Your task to perform on an android device: Do I have any events today? Image 0: 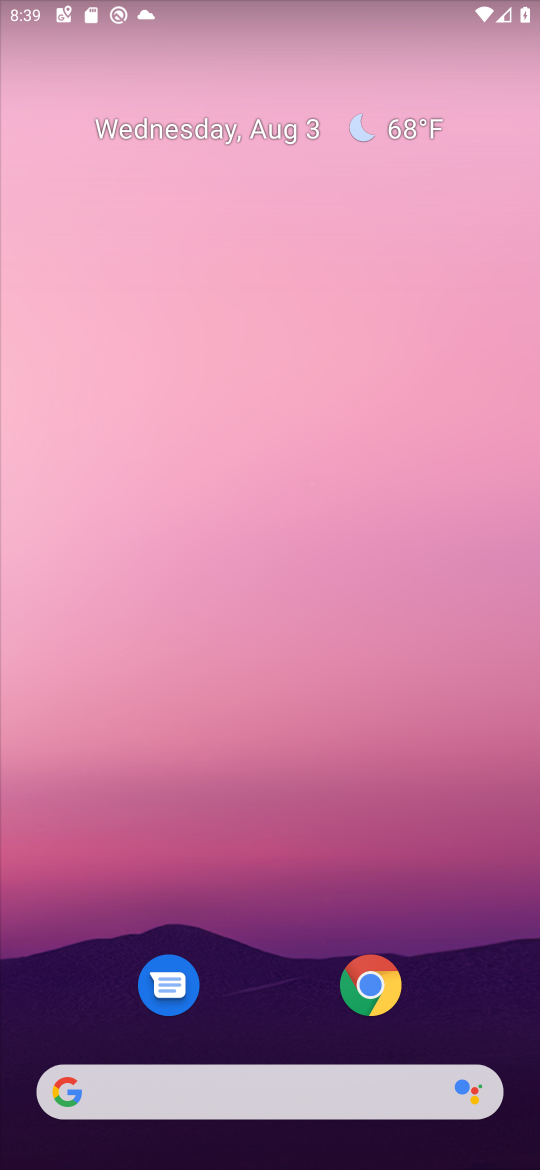
Step 0: drag from (281, 970) to (261, 383)
Your task to perform on an android device: Do I have any events today? Image 1: 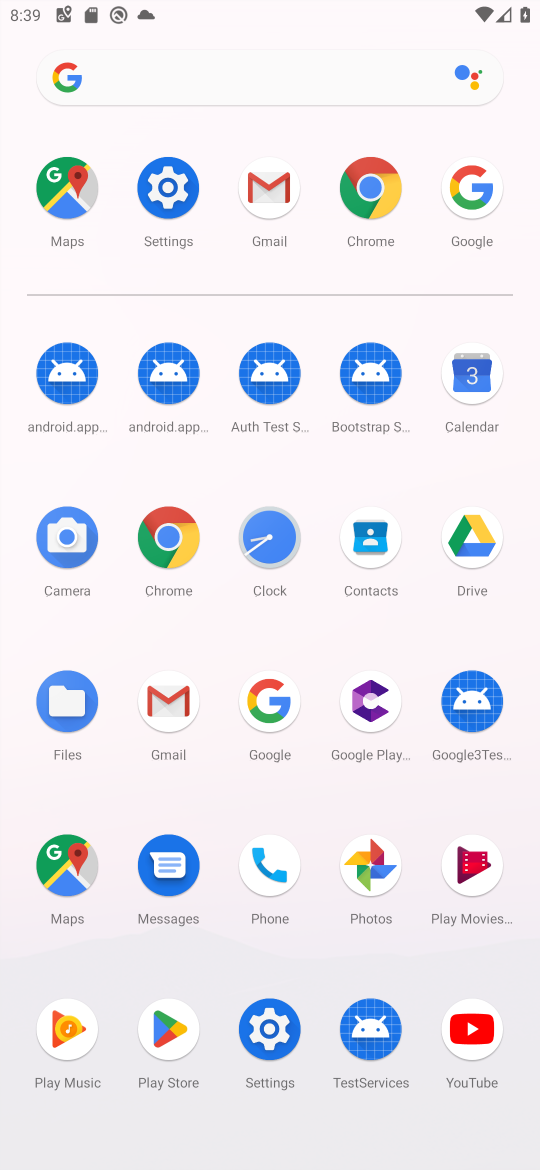
Step 1: click (454, 388)
Your task to perform on an android device: Do I have any events today? Image 2: 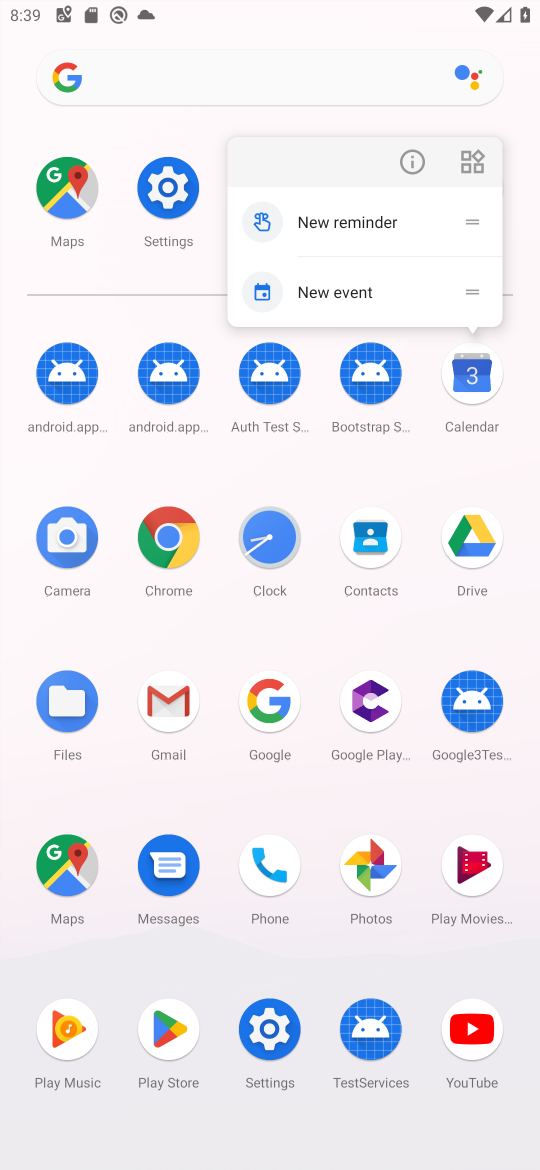
Step 2: click (471, 399)
Your task to perform on an android device: Do I have any events today? Image 3: 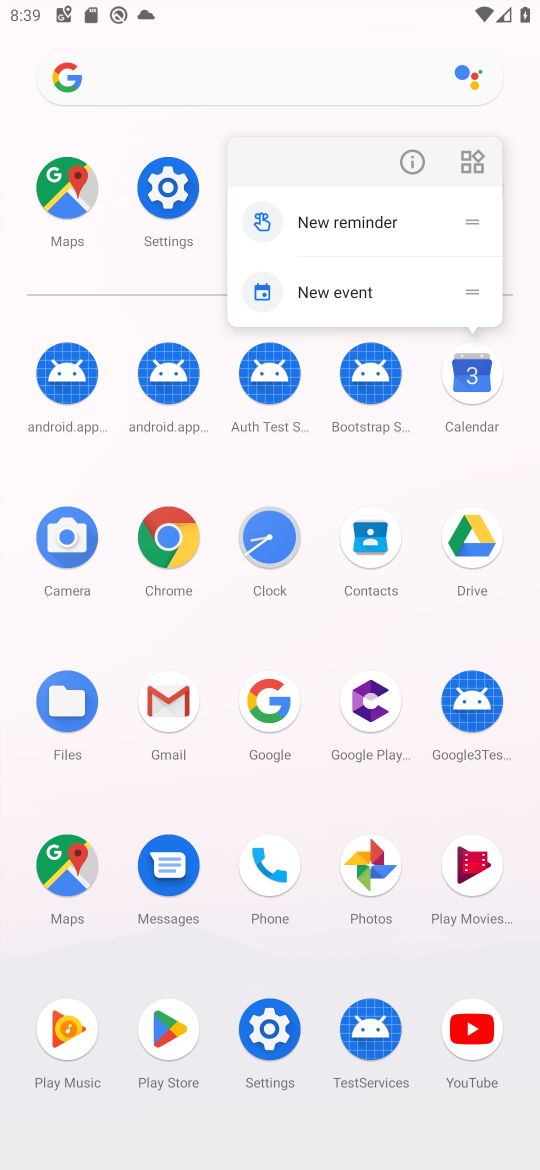
Step 3: click (471, 399)
Your task to perform on an android device: Do I have any events today? Image 4: 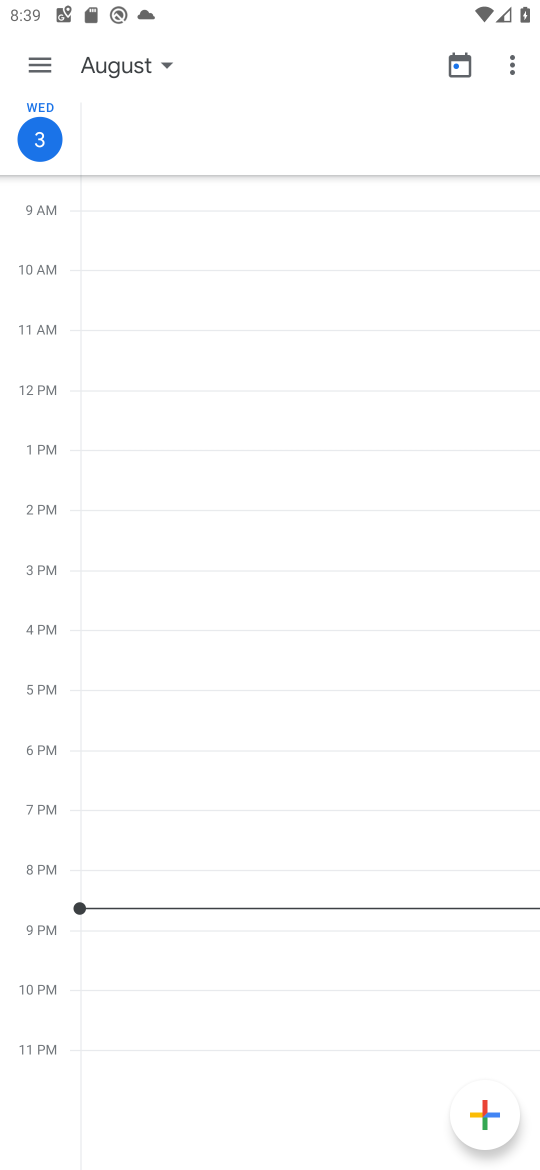
Step 4: click (155, 57)
Your task to perform on an android device: Do I have any events today? Image 5: 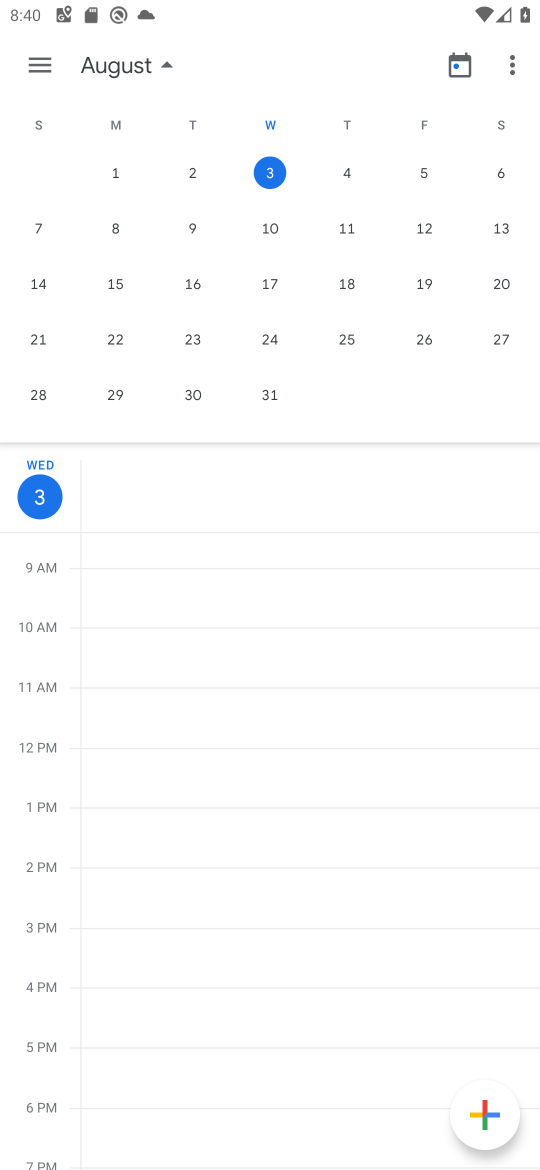
Step 5: click (286, 174)
Your task to perform on an android device: Do I have any events today? Image 6: 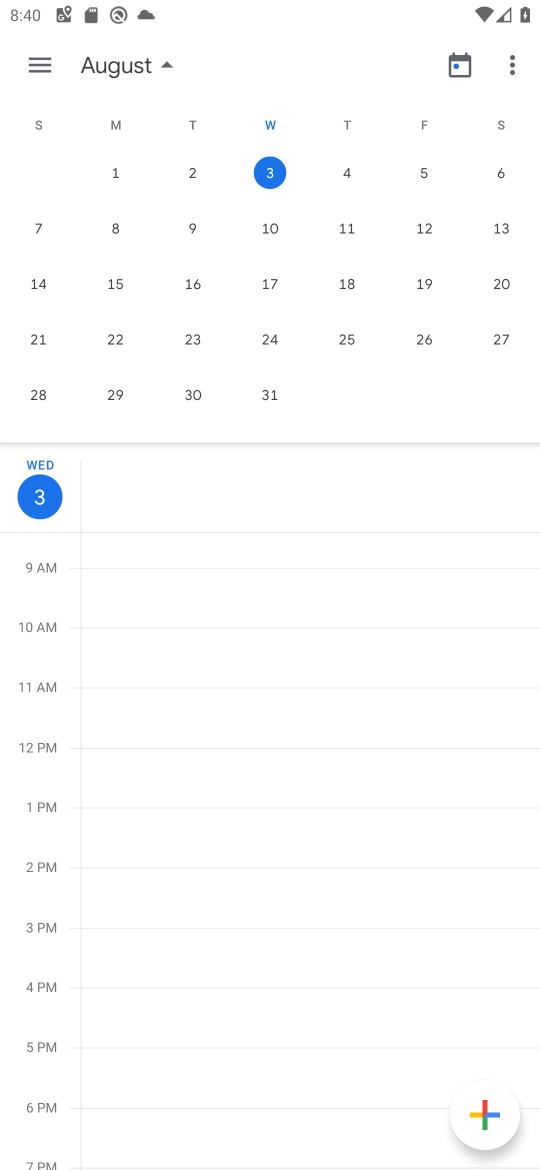
Step 6: click (19, 60)
Your task to perform on an android device: Do I have any events today? Image 7: 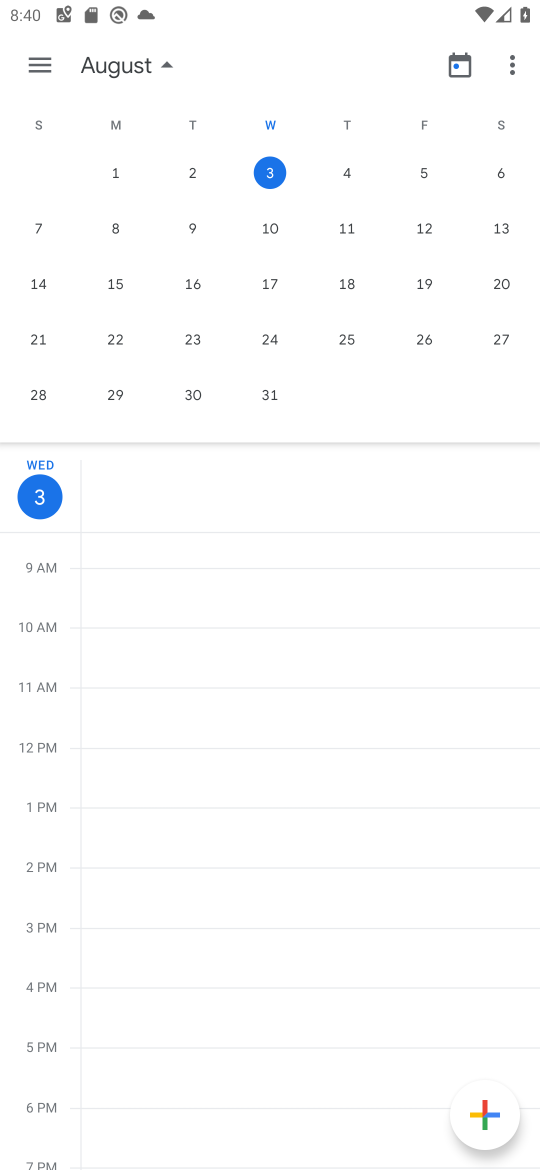
Step 7: click (46, 60)
Your task to perform on an android device: Do I have any events today? Image 8: 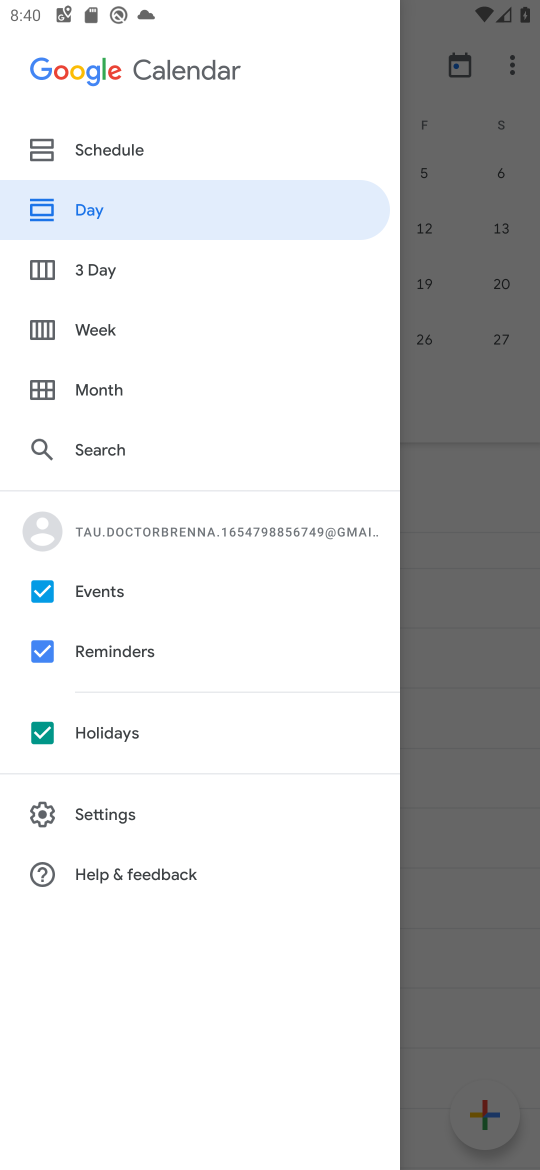
Step 8: click (136, 159)
Your task to perform on an android device: Do I have any events today? Image 9: 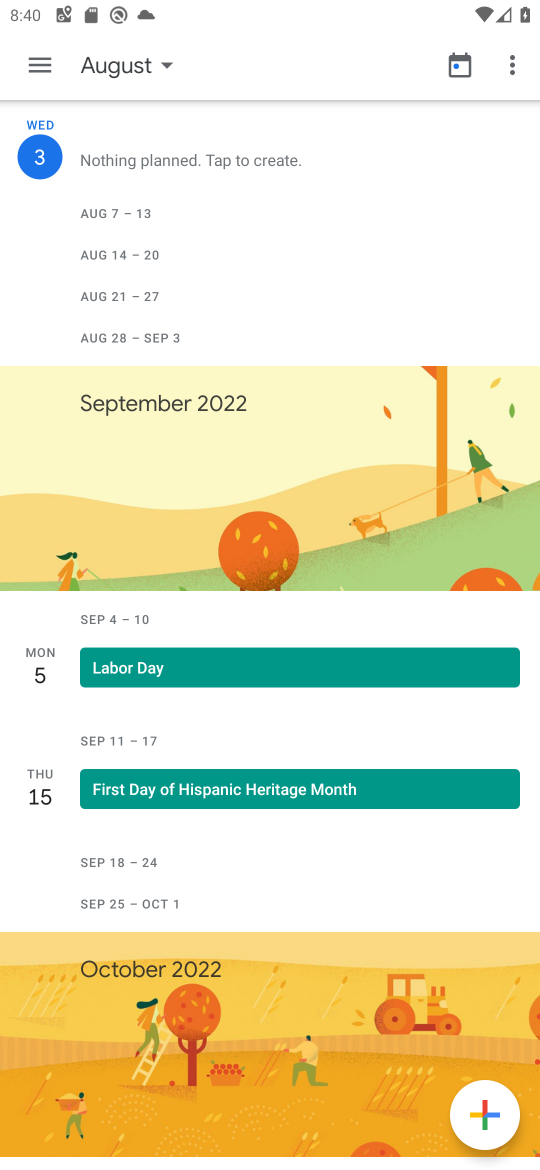
Step 9: click (30, 80)
Your task to perform on an android device: Do I have any events today? Image 10: 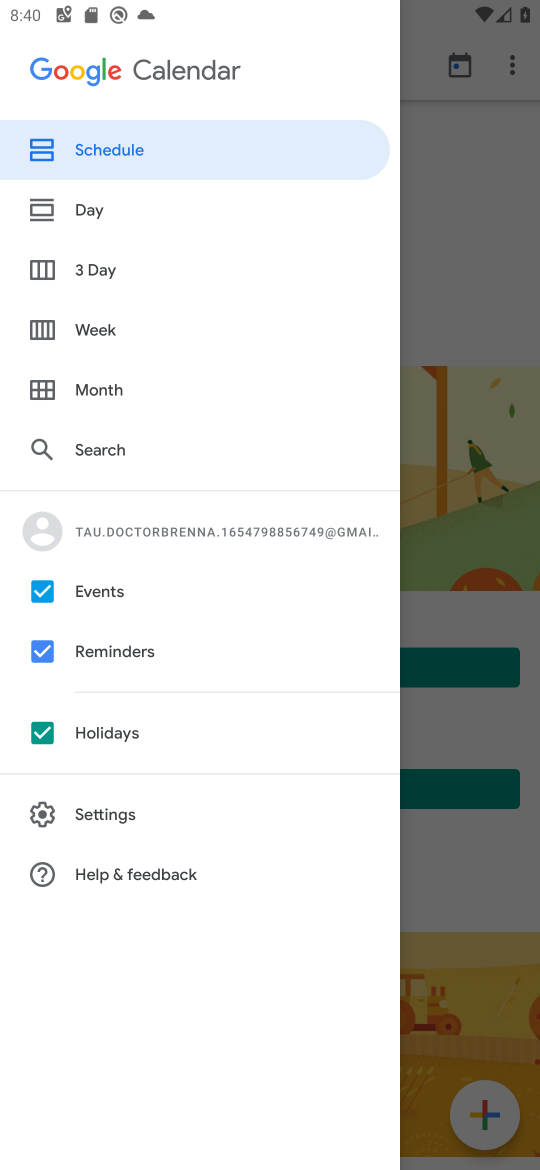
Step 10: click (435, 225)
Your task to perform on an android device: Do I have any events today? Image 11: 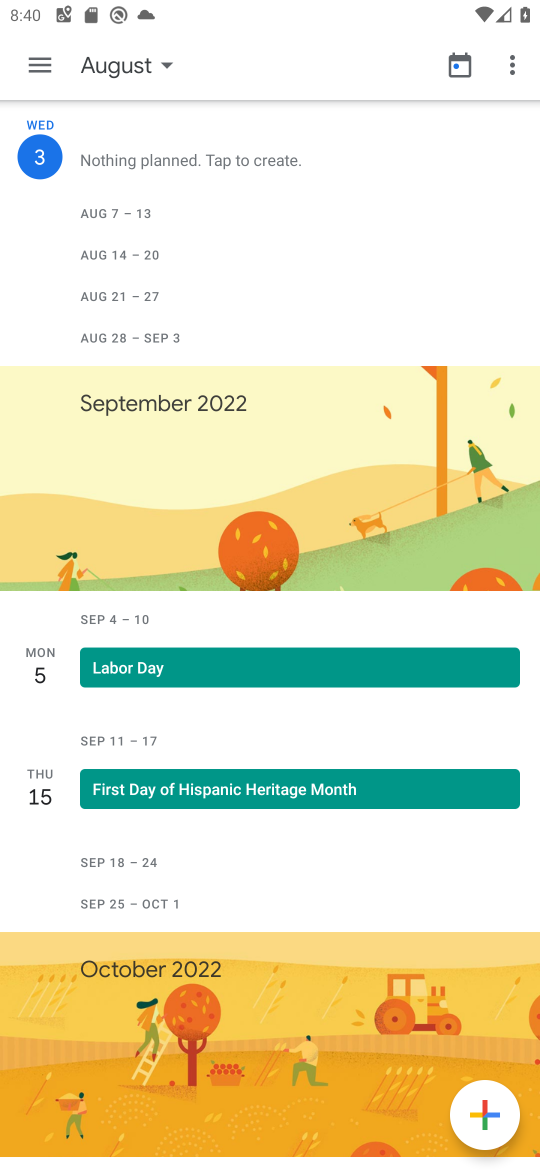
Step 11: task complete